Your task to perform on an android device: turn pop-ups off in chrome Image 0: 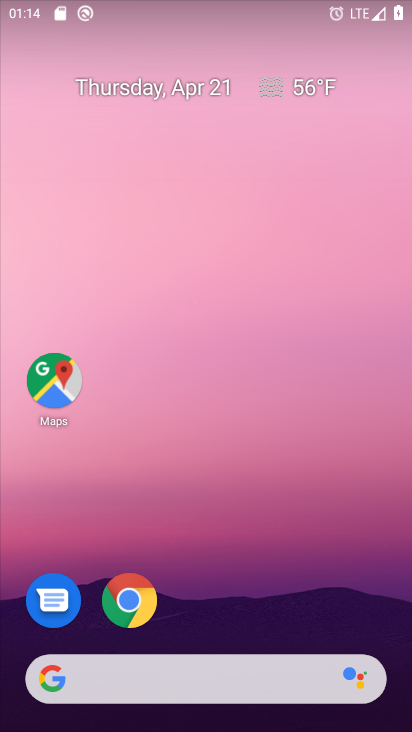
Step 0: click (142, 588)
Your task to perform on an android device: turn pop-ups off in chrome Image 1: 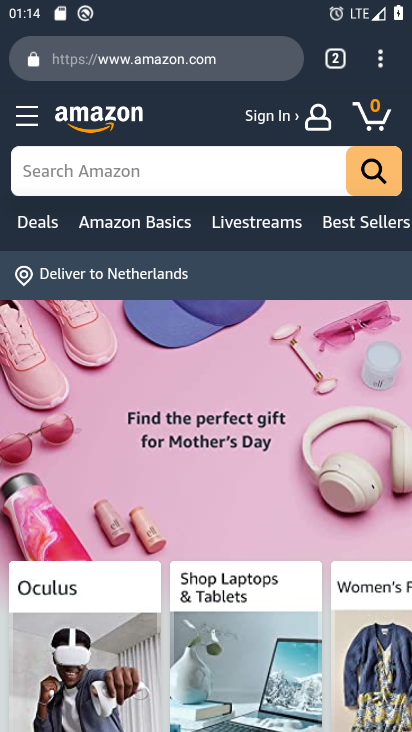
Step 1: click (383, 57)
Your task to perform on an android device: turn pop-ups off in chrome Image 2: 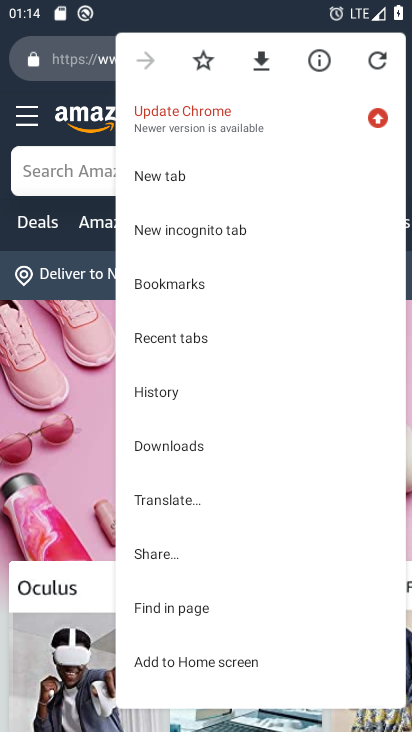
Step 2: drag from (246, 570) to (257, 323)
Your task to perform on an android device: turn pop-ups off in chrome Image 3: 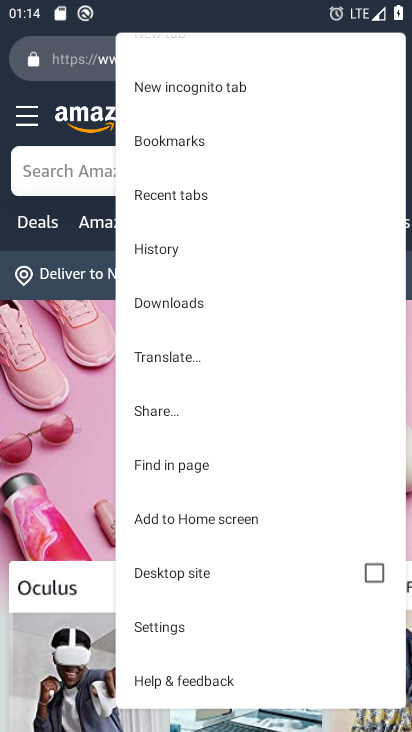
Step 3: click (211, 626)
Your task to perform on an android device: turn pop-ups off in chrome Image 4: 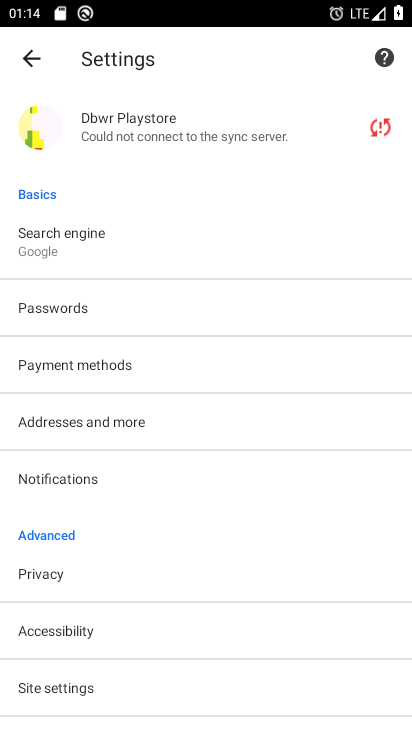
Step 4: click (201, 690)
Your task to perform on an android device: turn pop-ups off in chrome Image 5: 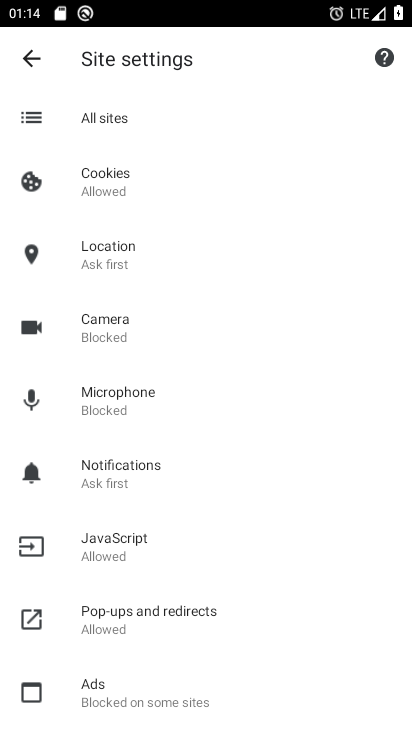
Step 5: click (210, 620)
Your task to perform on an android device: turn pop-ups off in chrome Image 6: 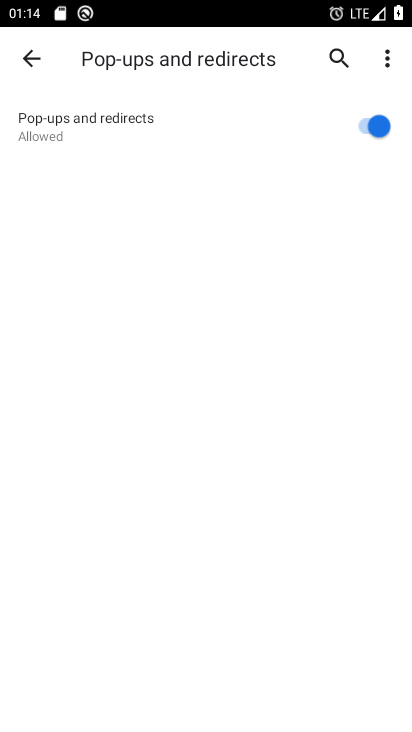
Step 6: click (367, 126)
Your task to perform on an android device: turn pop-ups off in chrome Image 7: 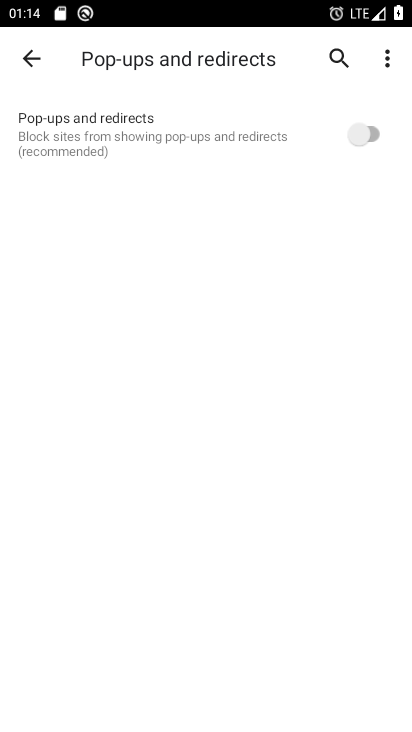
Step 7: task complete